Your task to perform on an android device: Go to battery settings Image 0: 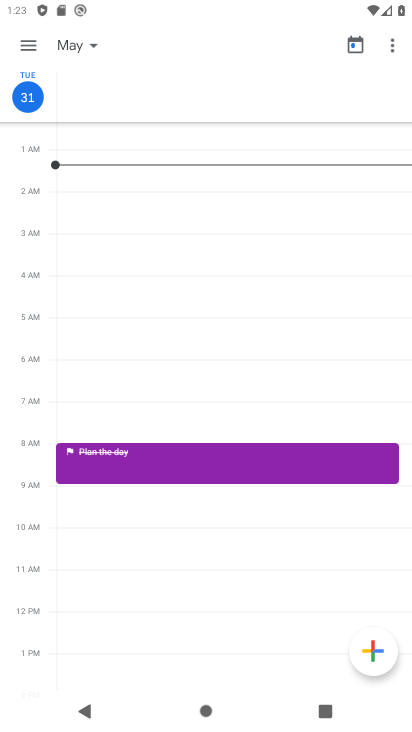
Step 0: drag from (344, 613) to (351, 484)
Your task to perform on an android device: Go to battery settings Image 1: 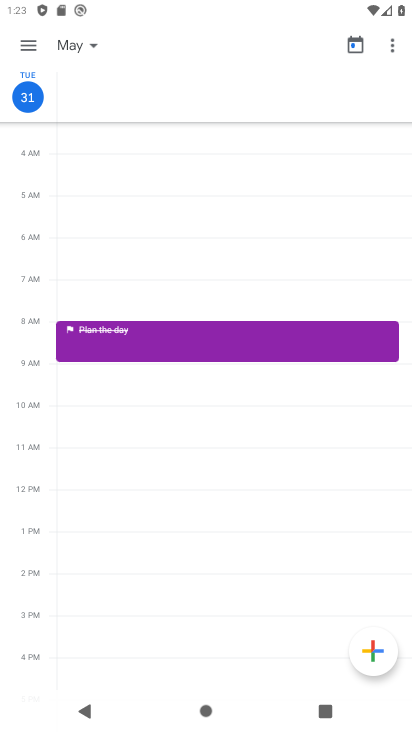
Step 1: press home button
Your task to perform on an android device: Go to battery settings Image 2: 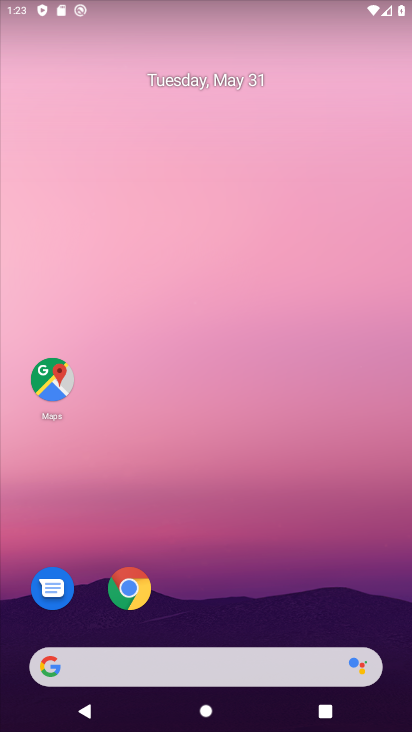
Step 2: drag from (344, 589) to (359, 193)
Your task to perform on an android device: Go to battery settings Image 3: 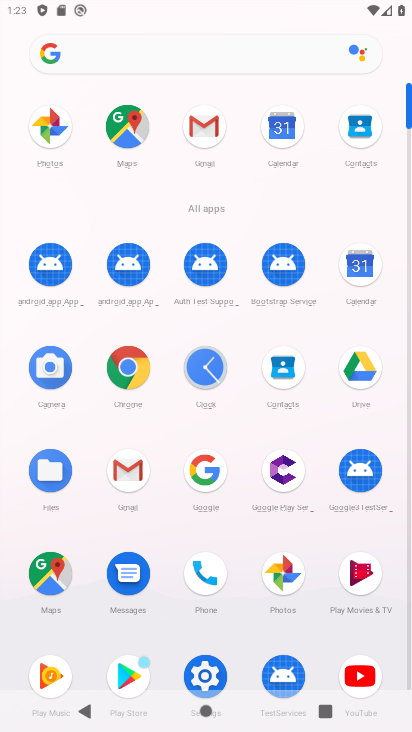
Step 3: click (205, 676)
Your task to perform on an android device: Go to battery settings Image 4: 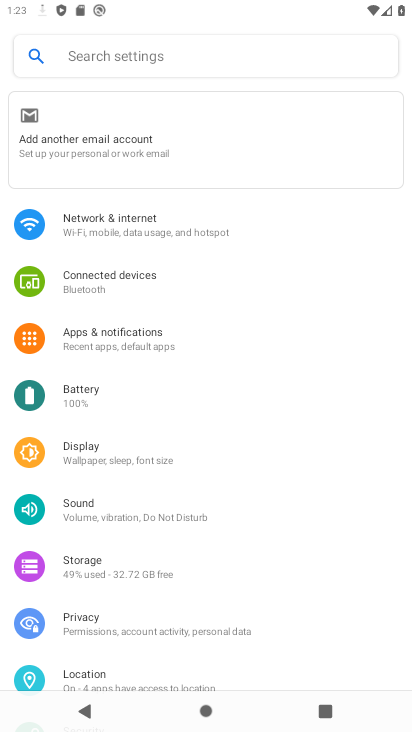
Step 4: drag from (324, 541) to (329, 377)
Your task to perform on an android device: Go to battery settings Image 5: 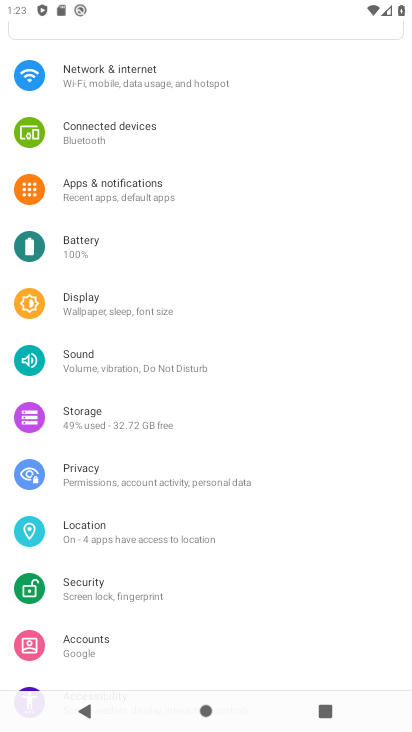
Step 5: click (88, 252)
Your task to perform on an android device: Go to battery settings Image 6: 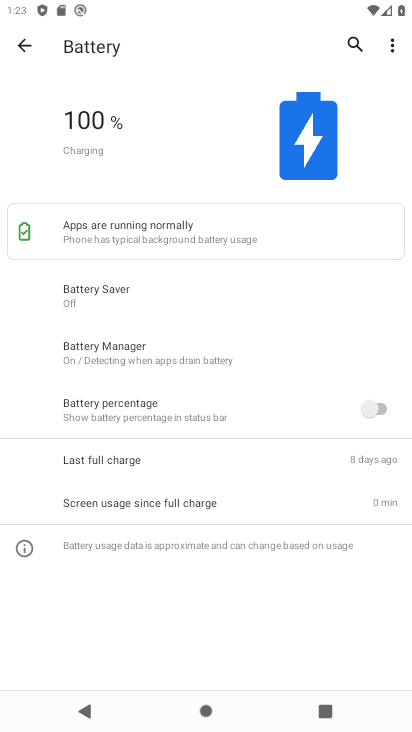
Step 6: task complete